Your task to perform on an android device: Go to Wikipedia Image 0: 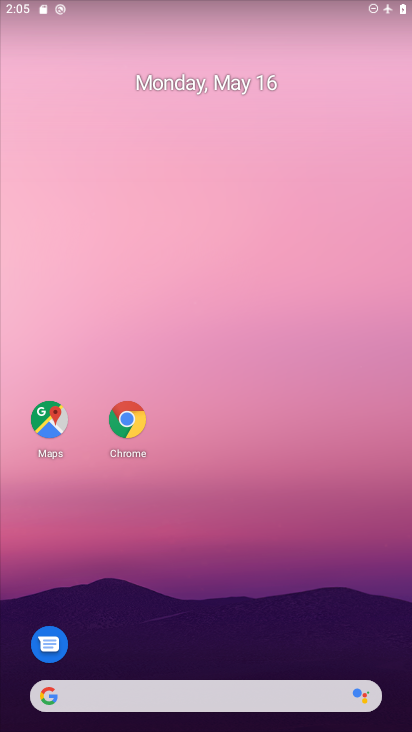
Step 0: drag from (176, 558) to (274, 0)
Your task to perform on an android device: Go to Wikipedia Image 1: 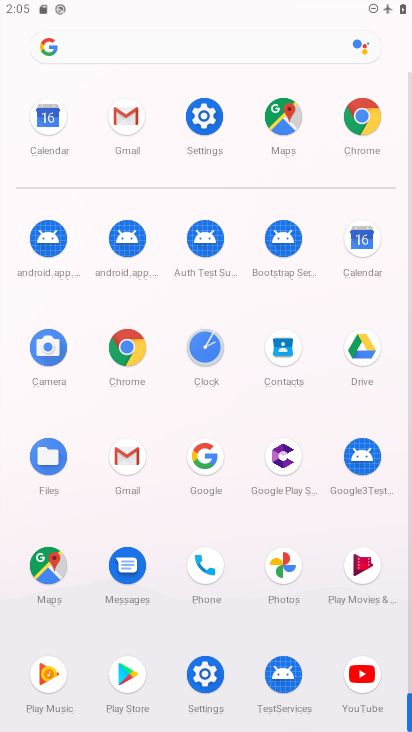
Step 1: click (123, 347)
Your task to perform on an android device: Go to Wikipedia Image 2: 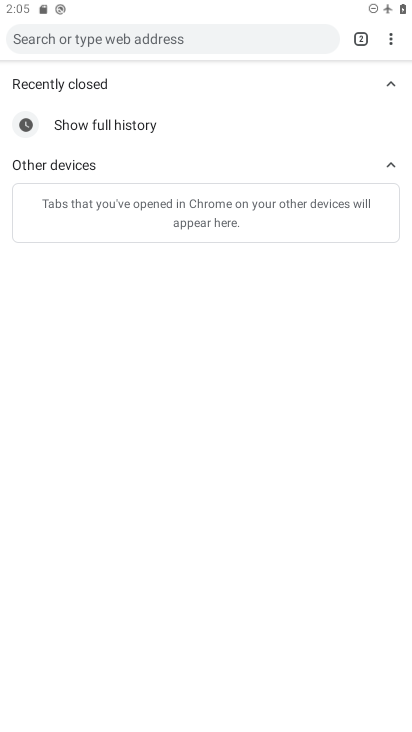
Step 2: click (363, 43)
Your task to perform on an android device: Go to Wikipedia Image 3: 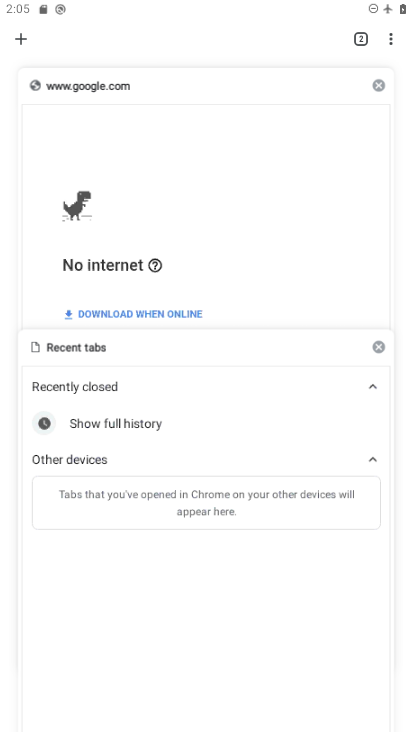
Step 3: click (25, 38)
Your task to perform on an android device: Go to Wikipedia Image 4: 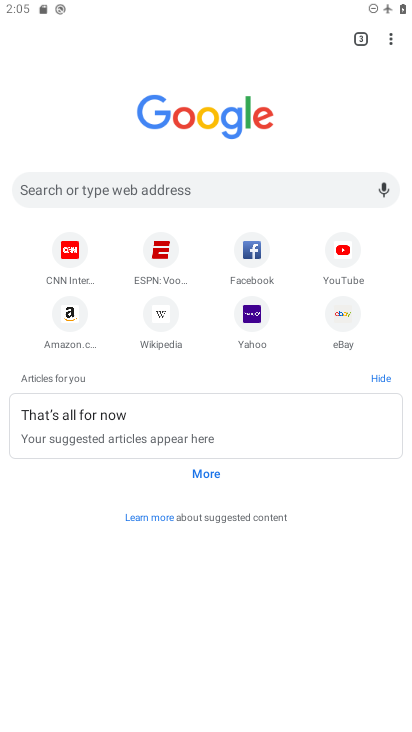
Step 4: click (147, 304)
Your task to perform on an android device: Go to Wikipedia Image 5: 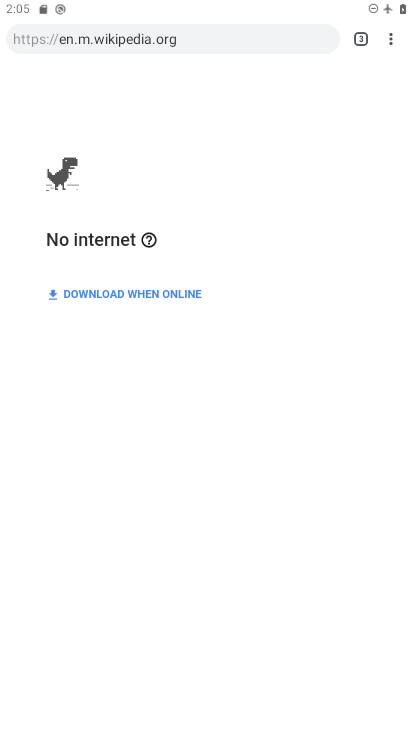
Step 5: task complete